Your task to perform on an android device: turn on showing notifications on the lock screen Image 0: 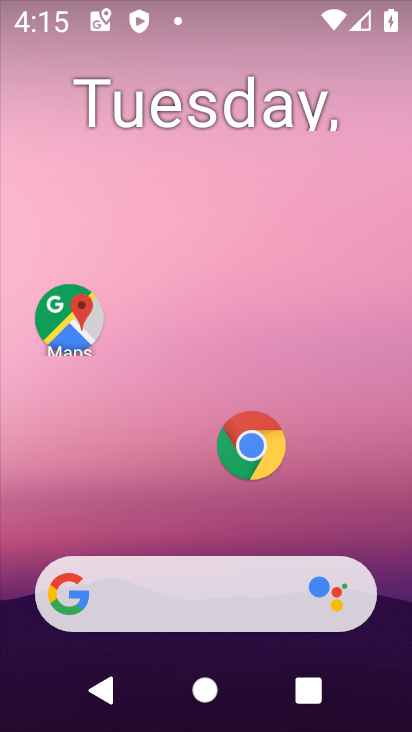
Step 0: click (241, 450)
Your task to perform on an android device: turn on showing notifications on the lock screen Image 1: 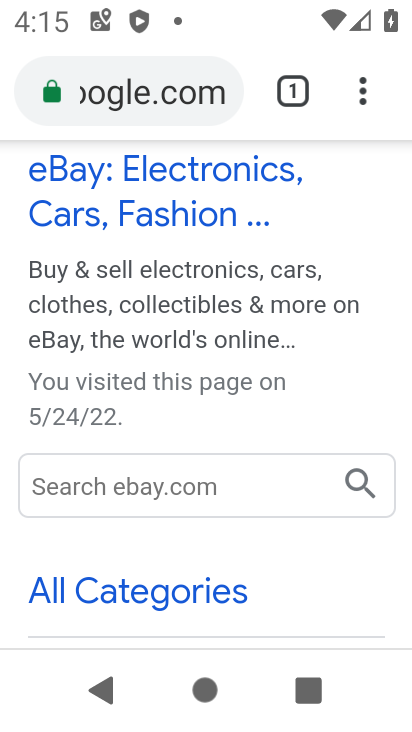
Step 1: press home button
Your task to perform on an android device: turn on showing notifications on the lock screen Image 2: 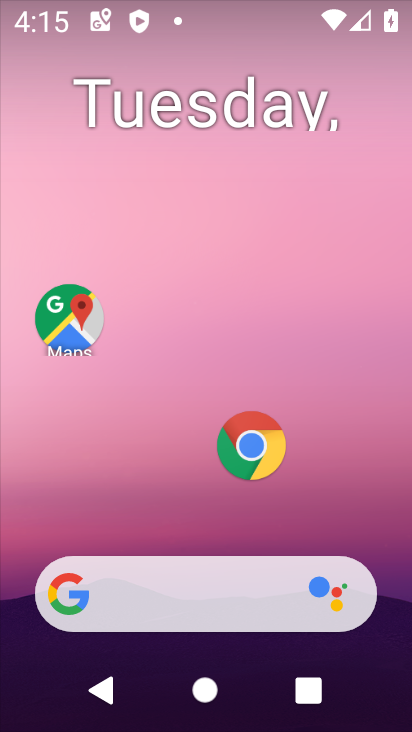
Step 2: drag from (168, 467) to (194, 13)
Your task to perform on an android device: turn on showing notifications on the lock screen Image 3: 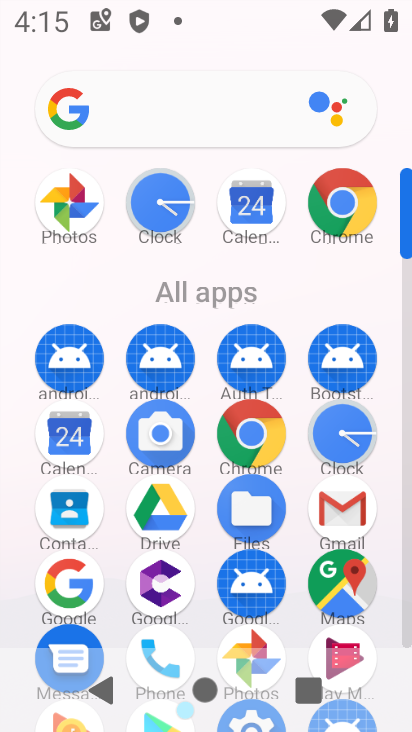
Step 3: drag from (214, 585) to (251, 262)
Your task to perform on an android device: turn on showing notifications on the lock screen Image 4: 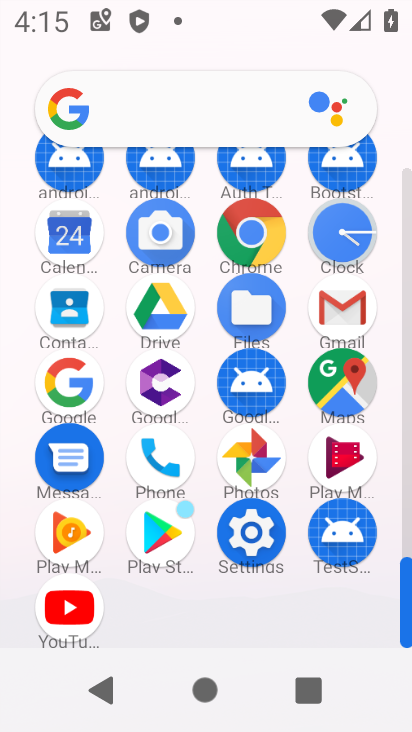
Step 4: click (249, 530)
Your task to perform on an android device: turn on showing notifications on the lock screen Image 5: 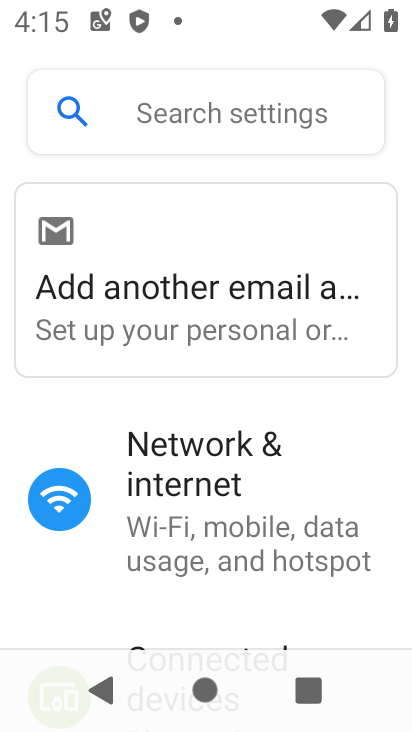
Step 5: drag from (204, 540) to (278, 86)
Your task to perform on an android device: turn on showing notifications on the lock screen Image 6: 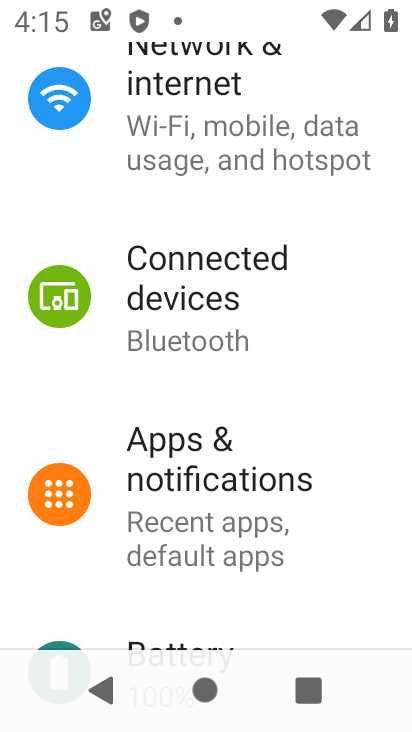
Step 6: click (209, 465)
Your task to perform on an android device: turn on showing notifications on the lock screen Image 7: 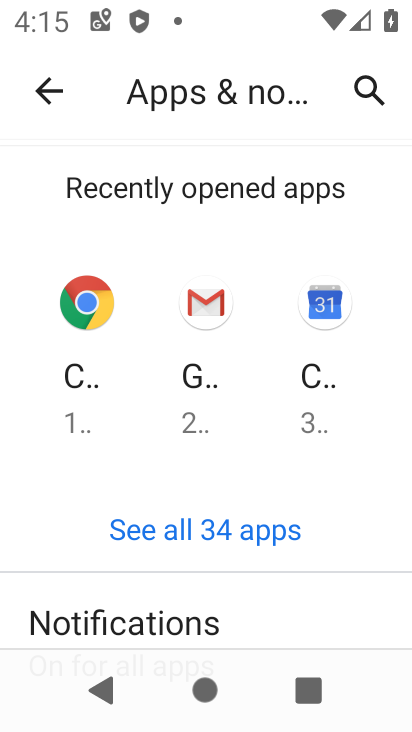
Step 7: drag from (256, 545) to (284, 82)
Your task to perform on an android device: turn on showing notifications on the lock screen Image 8: 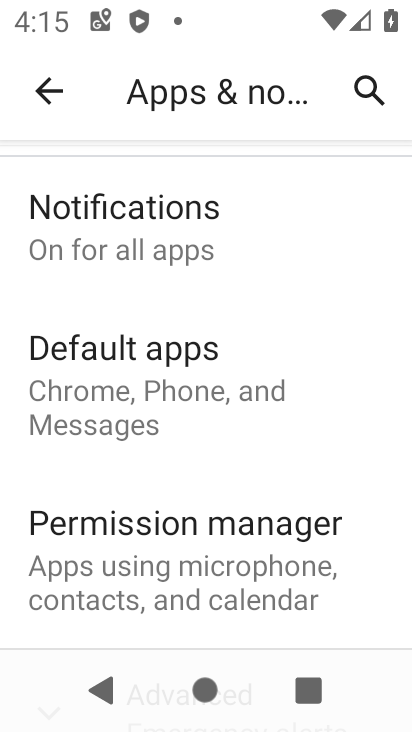
Step 8: click (119, 246)
Your task to perform on an android device: turn on showing notifications on the lock screen Image 9: 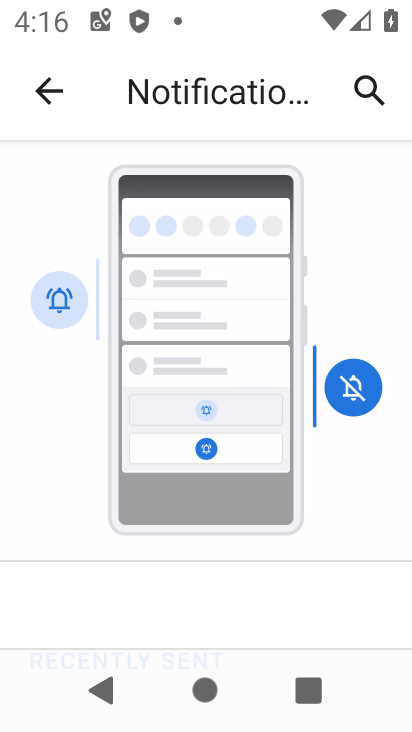
Step 9: drag from (243, 505) to (283, 39)
Your task to perform on an android device: turn on showing notifications on the lock screen Image 10: 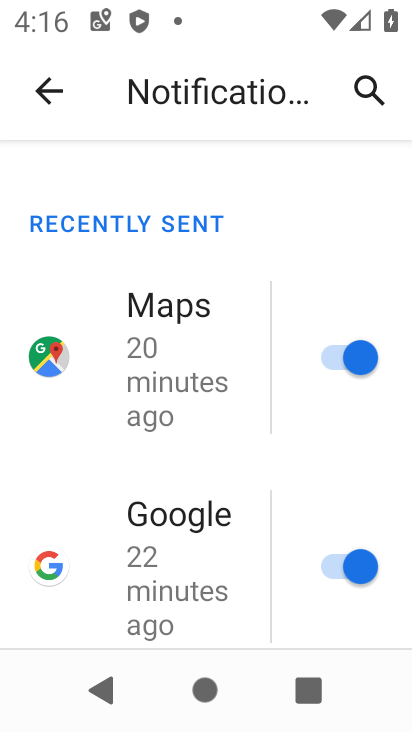
Step 10: drag from (147, 577) to (186, 168)
Your task to perform on an android device: turn on showing notifications on the lock screen Image 11: 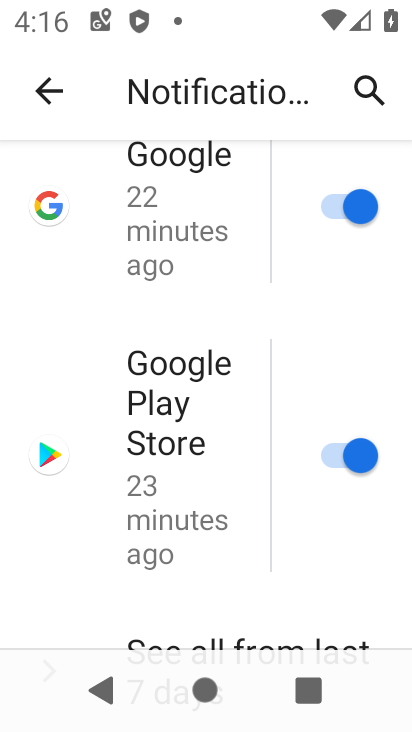
Step 11: drag from (156, 563) to (230, 116)
Your task to perform on an android device: turn on showing notifications on the lock screen Image 12: 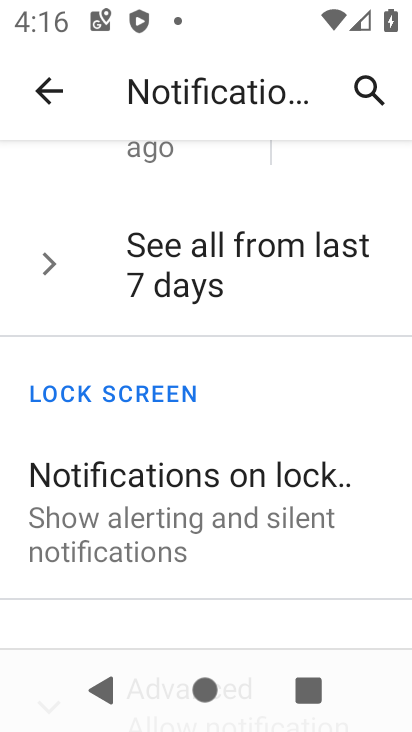
Step 12: click (186, 519)
Your task to perform on an android device: turn on showing notifications on the lock screen Image 13: 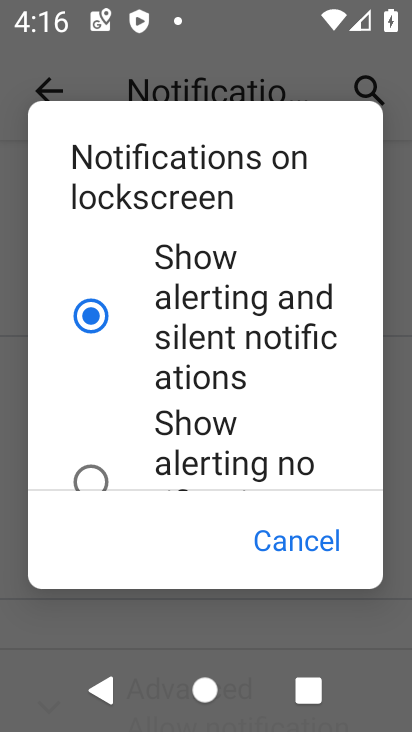
Step 13: task complete